Your task to perform on an android device: When is my next appointment? Image 0: 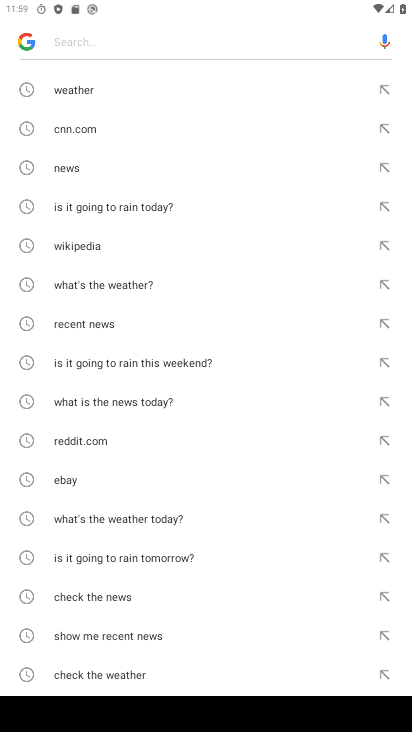
Step 0: press home button
Your task to perform on an android device: When is my next appointment? Image 1: 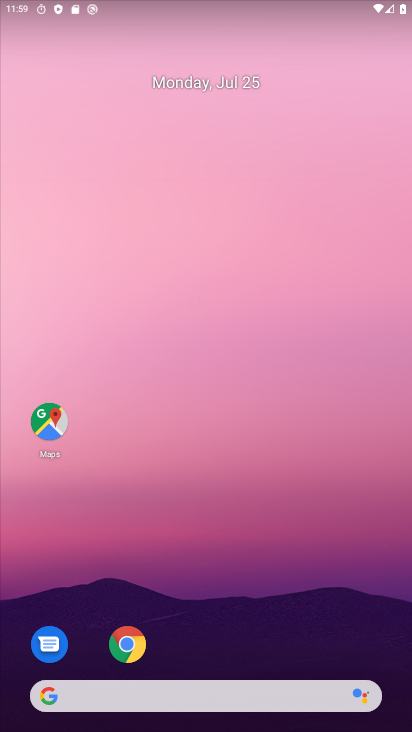
Step 1: drag from (190, 677) to (191, 2)
Your task to perform on an android device: When is my next appointment? Image 2: 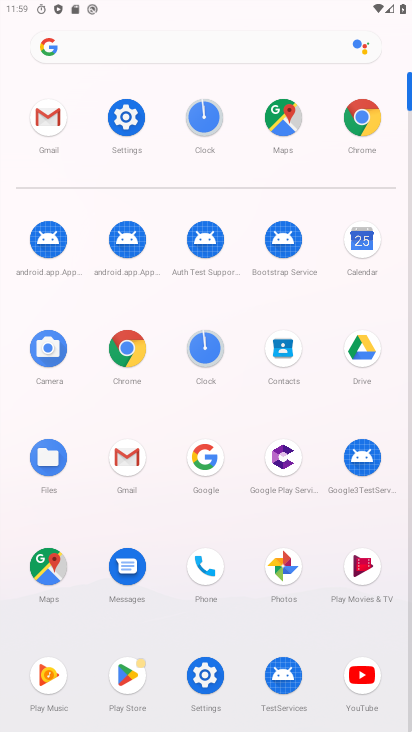
Step 2: click (366, 239)
Your task to perform on an android device: When is my next appointment? Image 3: 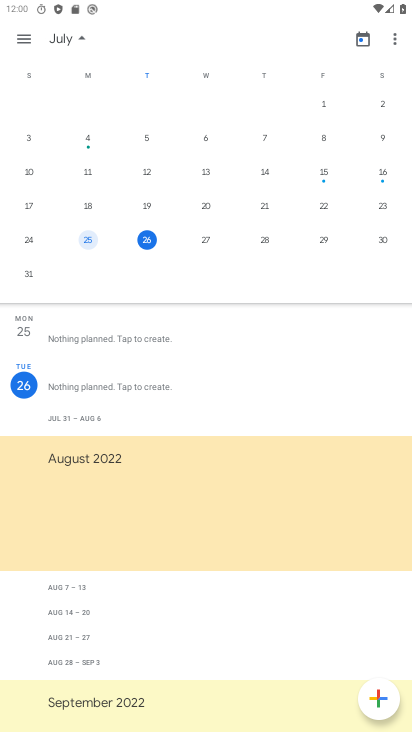
Step 3: task complete